Your task to perform on an android device: Go to network settings Image 0: 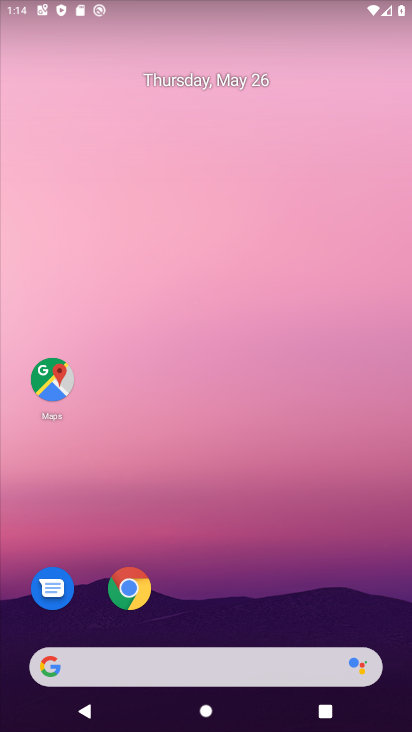
Step 0: drag from (394, 722) to (349, 198)
Your task to perform on an android device: Go to network settings Image 1: 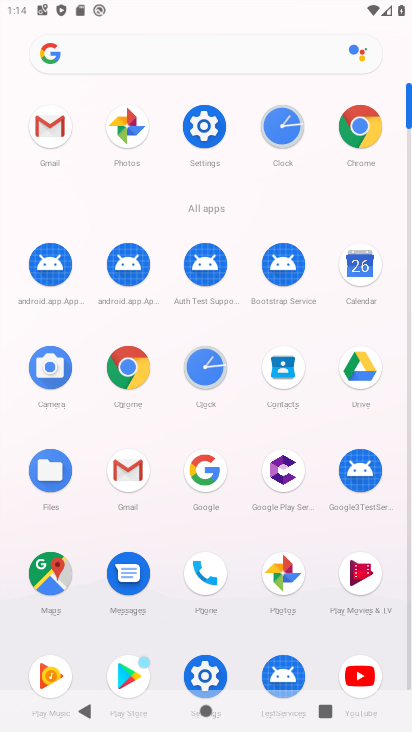
Step 1: click (211, 135)
Your task to perform on an android device: Go to network settings Image 2: 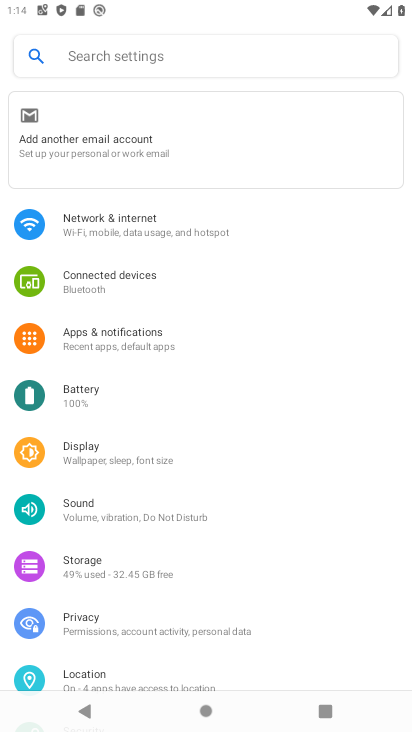
Step 2: click (109, 220)
Your task to perform on an android device: Go to network settings Image 3: 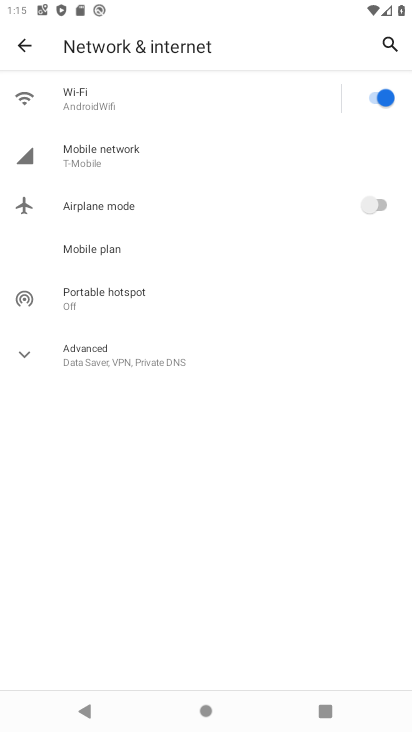
Step 3: click (87, 166)
Your task to perform on an android device: Go to network settings Image 4: 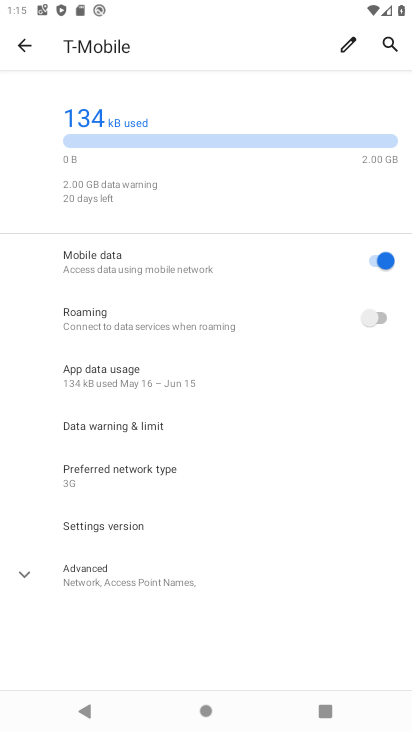
Step 4: click (27, 572)
Your task to perform on an android device: Go to network settings Image 5: 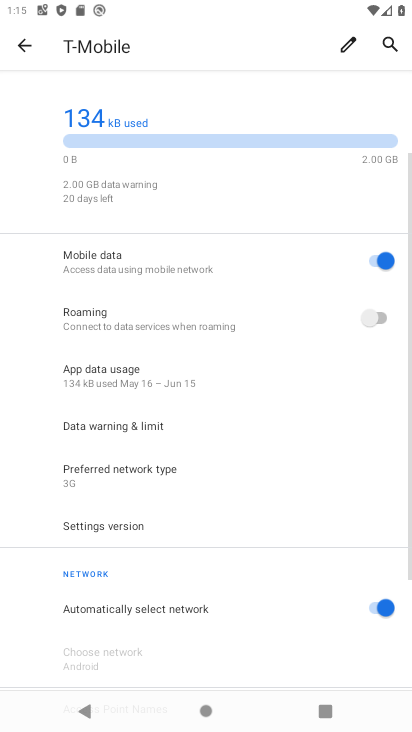
Step 5: task complete